Your task to perform on an android device: turn on showing notifications on the lock screen Image 0: 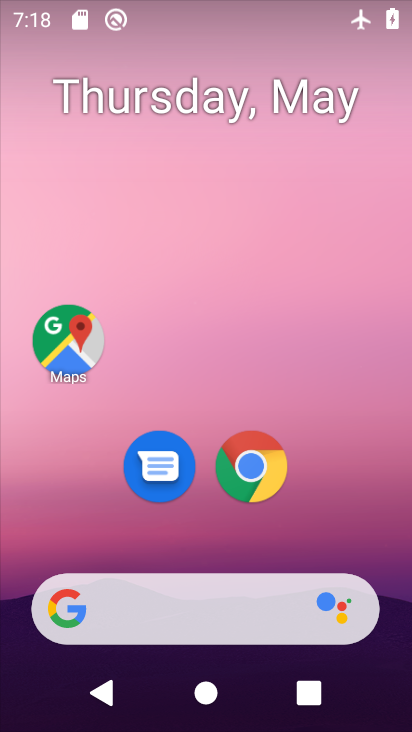
Step 0: drag from (373, 521) to (316, 0)
Your task to perform on an android device: turn on showing notifications on the lock screen Image 1: 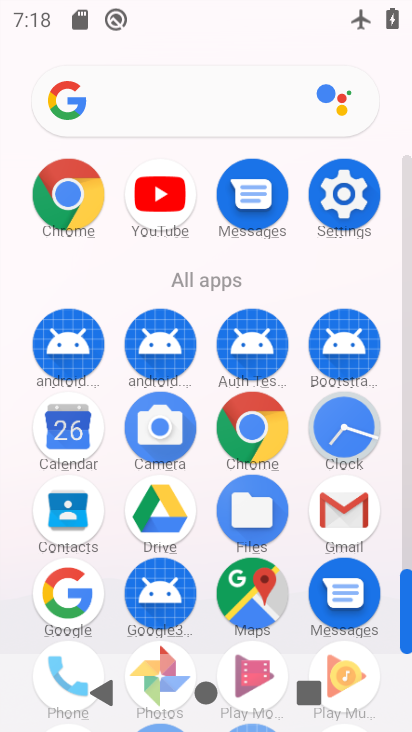
Step 1: click (343, 188)
Your task to perform on an android device: turn on showing notifications on the lock screen Image 2: 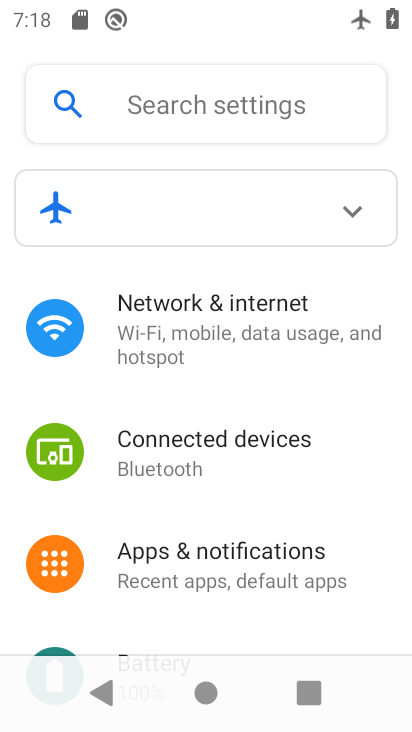
Step 2: drag from (242, 574) to (248, 286)
Your task to perform on an android device: turn on showing notifications on the lock screen Image 3: 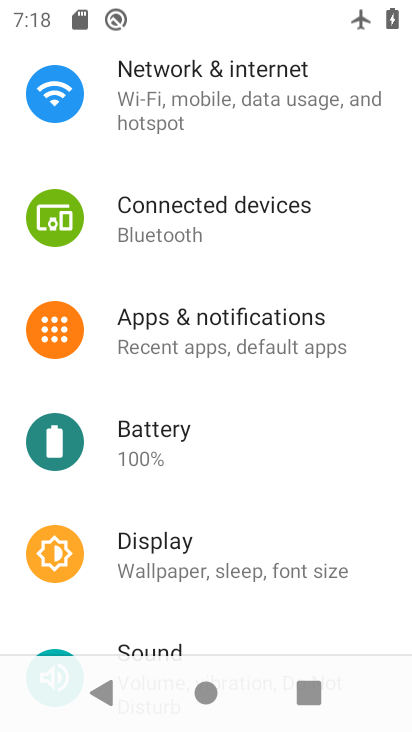
Step 3: drag from (236, 592) to (236, 519)
Your task to perform on an android device: turn on showing notifications on the lock screen Image 4: 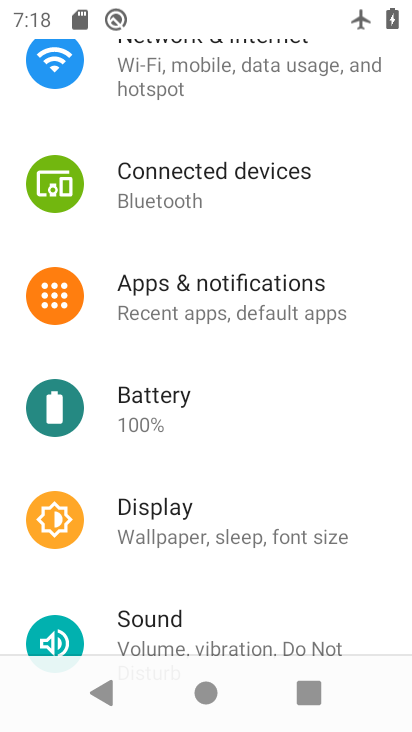
Step 4: click (236, 276)
Your task to perform on an android device: turn on showing notifications on the lock screen Image 5: 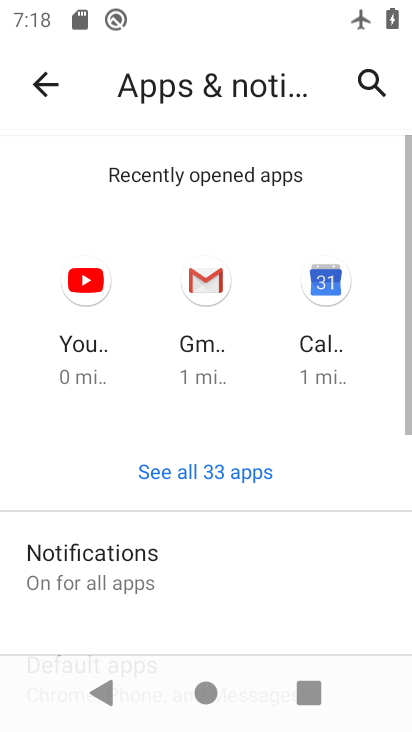
Step 5: click (312, 575)
Your task to perform on an android device: turn on showing notifications on the lock screen Image 6: 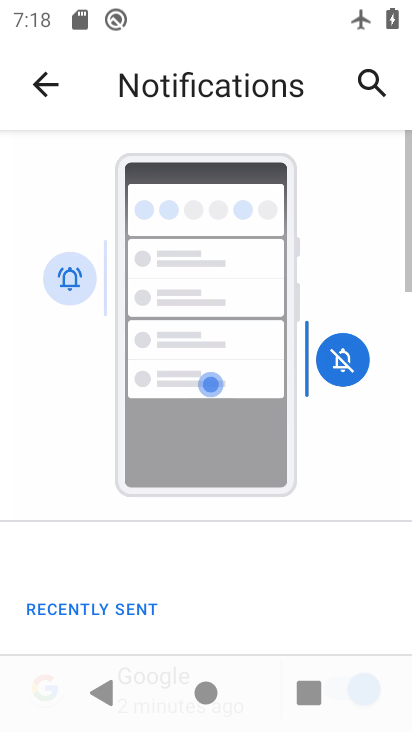
Step 6: drag from (269, 638) to (236, 113)
Your task to perform on an android device: turn on showing notifications on the lock screen Image 7: 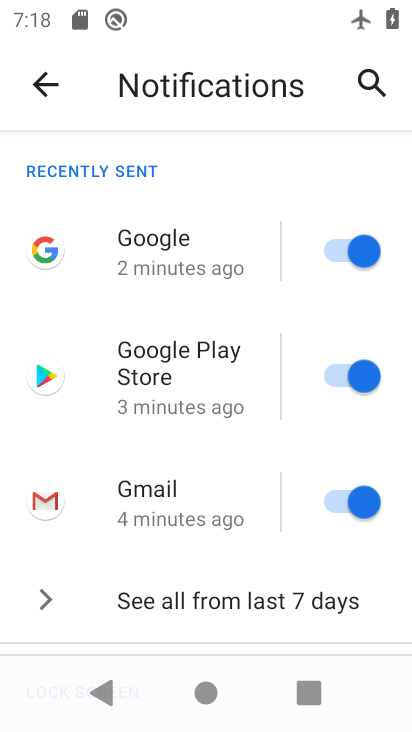
Step 7: click (234, 579)
Your task to perform on an android device: turn on showing notifications on the lock screen Image 8: 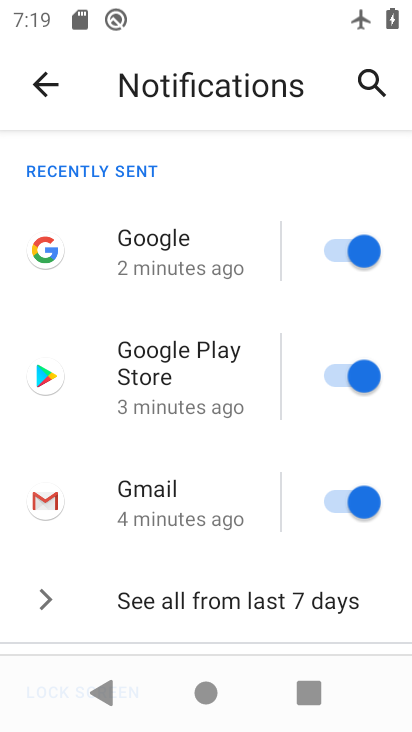
Step 8: click (226, 592)
Your task to perform on an android device: turn on showing notifications on the lock screen Image 9: 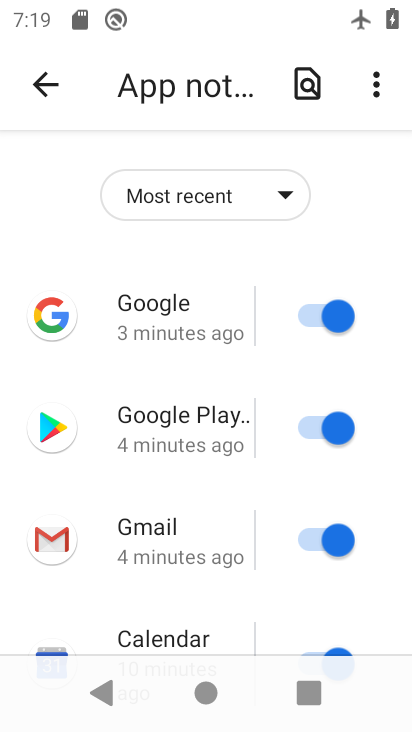
Step 9: click (40, 90)
Your task to perform on an android device: turn on showing notifications on the lock screen Image 10: 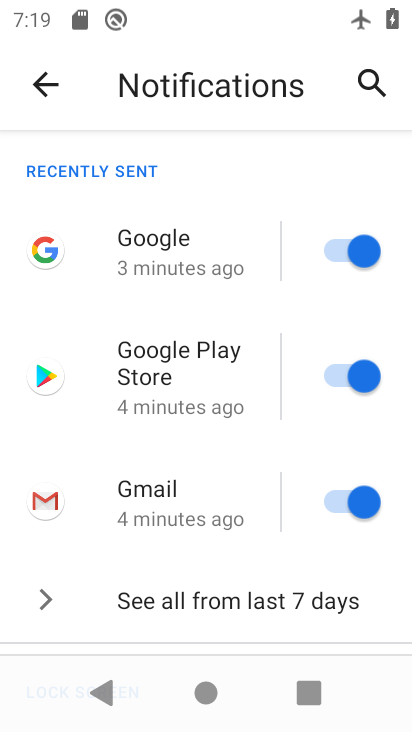
Step 10: click (40, 90)
Your task to perform on an android device: turn on showing notifications on the lock screen Image 11: 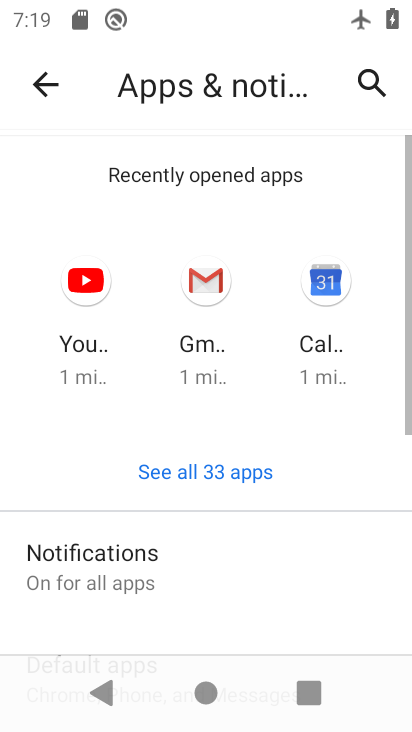
Step 11: drag from (233, 540) to (228, 228)
Your task to perform on an android device: turn on showing notifications on the lock screen Image 12: 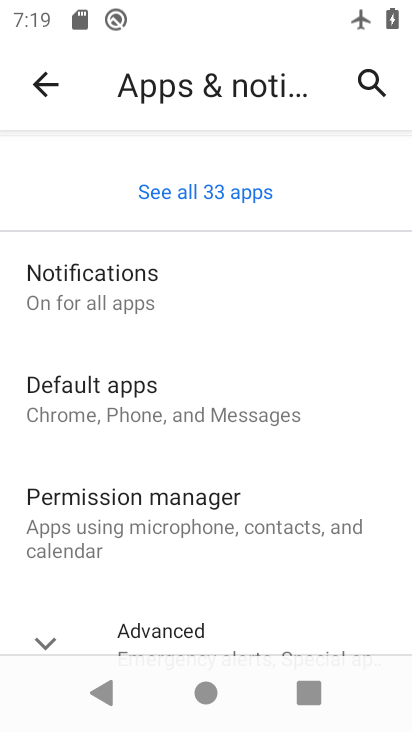
Step 12: click (160, 306)
Your task to perform on an android device: turn on showing notifications on the lock screen Image 13: 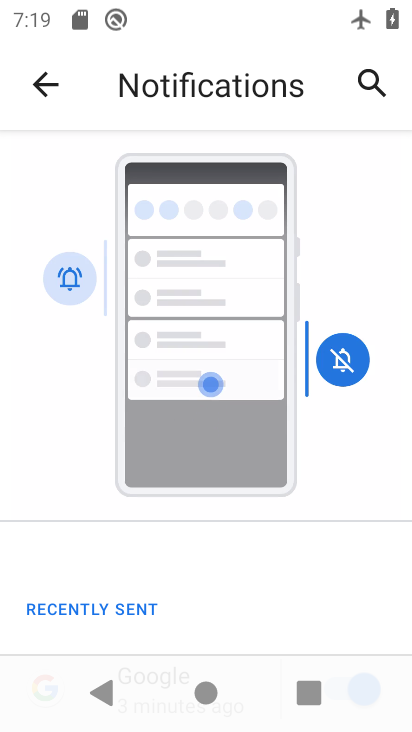
Step 13: drag from (198, 573) to (287, 103)
Your task to perform on an android device: turn on showing notifications on the lock screen Image 14: 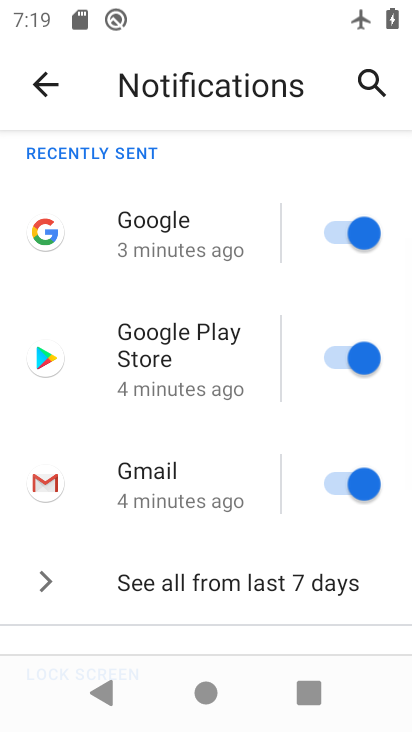
Step 14: drag from (206, 594) to (268, 161)
Your task to perform on an android device: turn on showing notifications on the lock screen Image 15: 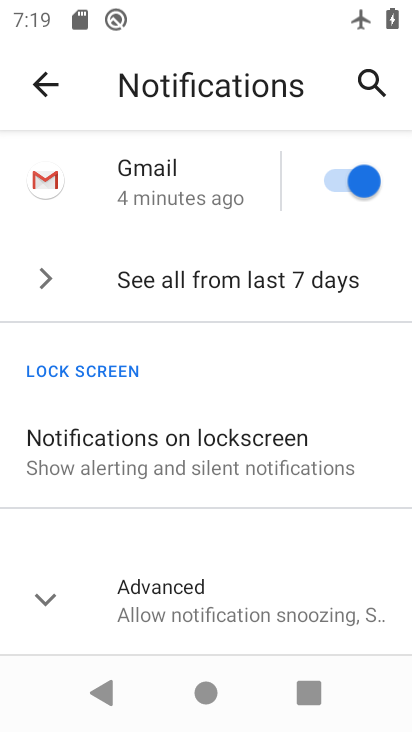
Step 15: click (234, 459)
Your task to perform on an android device: turn on showing notifications on the lock screen Image 16: 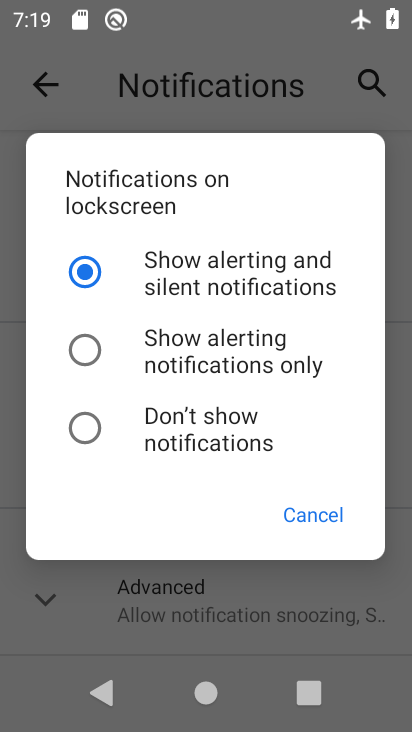
Step 16: click (282, 343)
Your task to perform on an android device: turn on showing notifications on the lock screen Image 17: 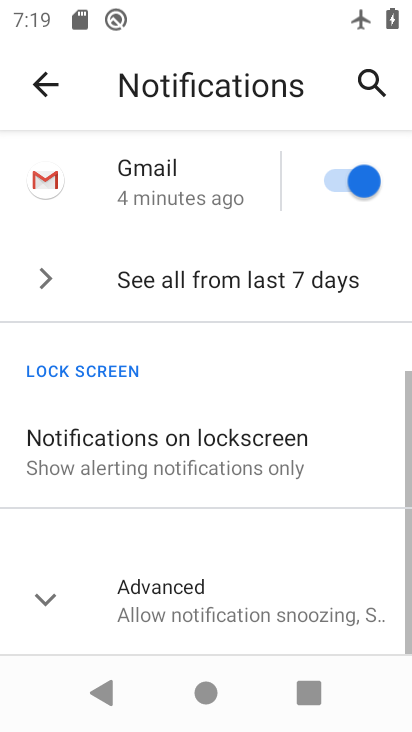
Step 17: task complete